Your task to perform on an android device: Search for Mexican restaurants on Maps Image 0: 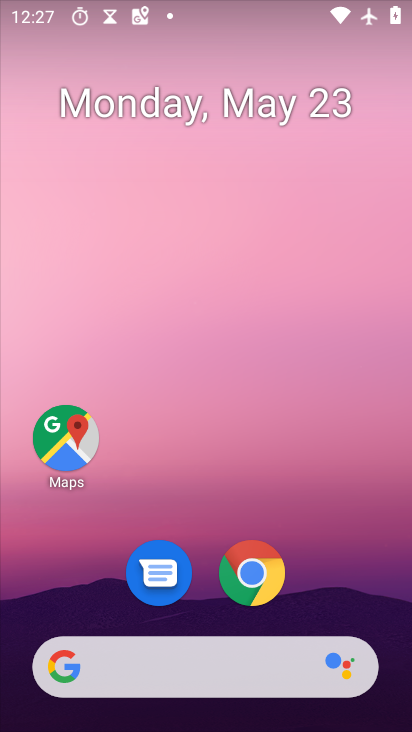
Step 0: press home button
Your task to perform on an android device: Search for Mexican restaurants on Maps Image 1: 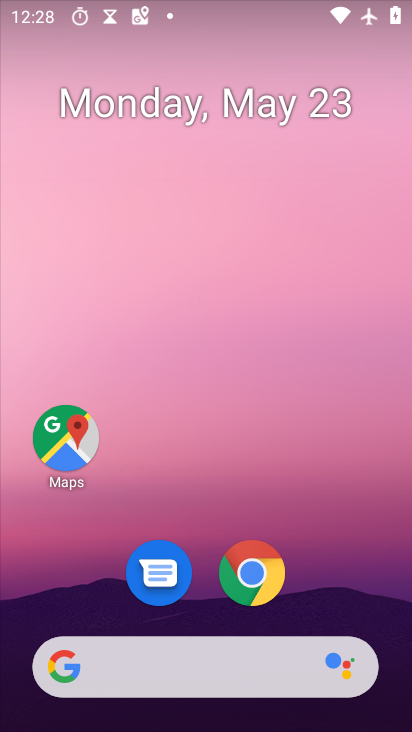
Step 1: click (54, 447)
Your task to perform on an android device: Search for Mexican restaurants on Maps Image 2: 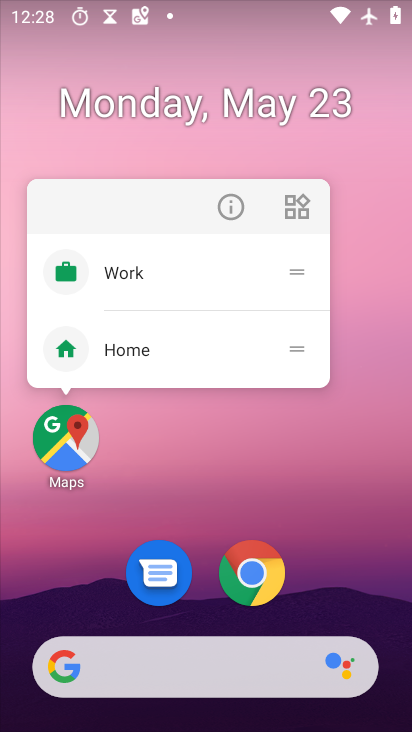
Step 2: click (68, 458)
Your task to perform on an android device: Search for Mexican restaurants on Maps Image 3: 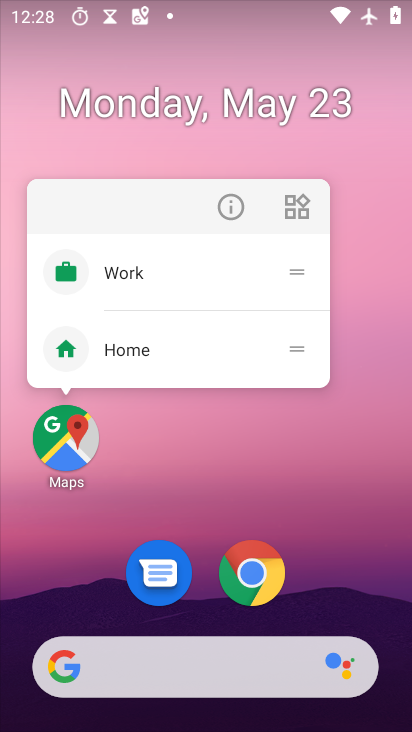
Step 3: click (68, 454)
Your task to perform on an android device: Search for Mexican restaurants on Maps Image 4: 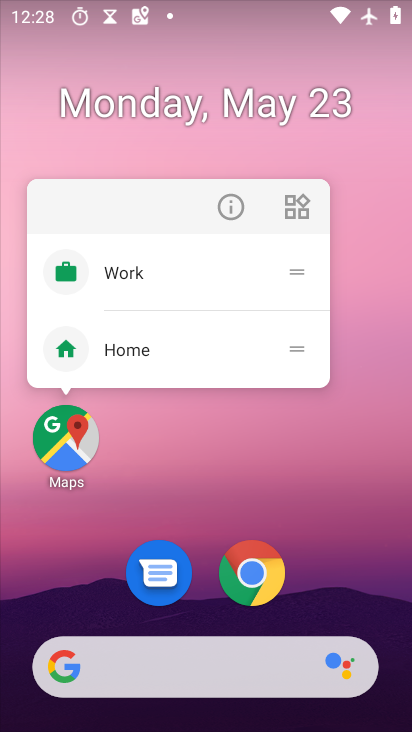
Step 4: click (63, 436)
Your task to perform on an android device: Search for Mexican restaurants on Maps Image 5: 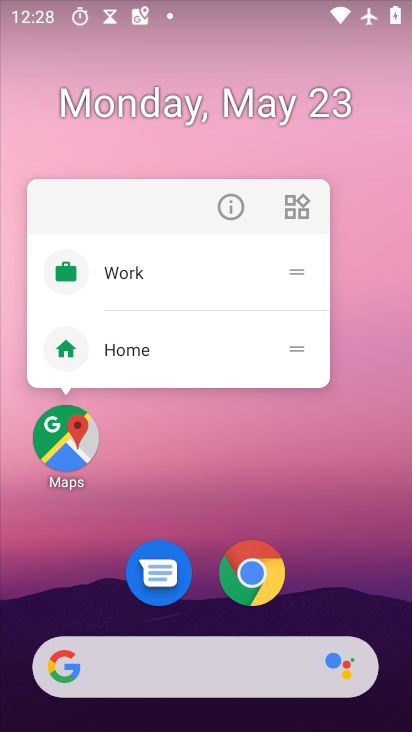
Step 5: click (66, 458)
Your task to perform on an android device: Search for Mexican restaurants on Maps Image 6: 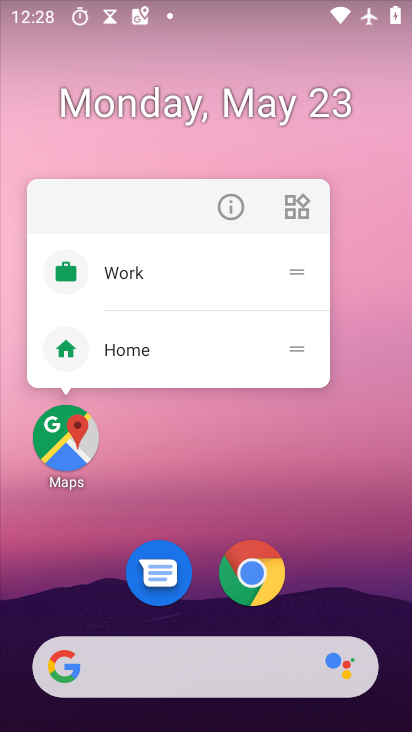
Step 6: click (66, 447)
Your task to perform on an android device: Search for Mexican restaurants on Maps Image 7: 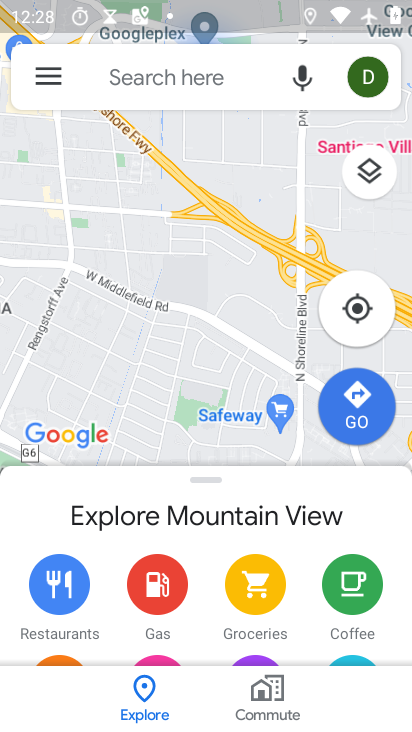
Step 7: click (214, 79)
Your task to perform on an android device: Search for Mexican restaurants on Maps Image 8: 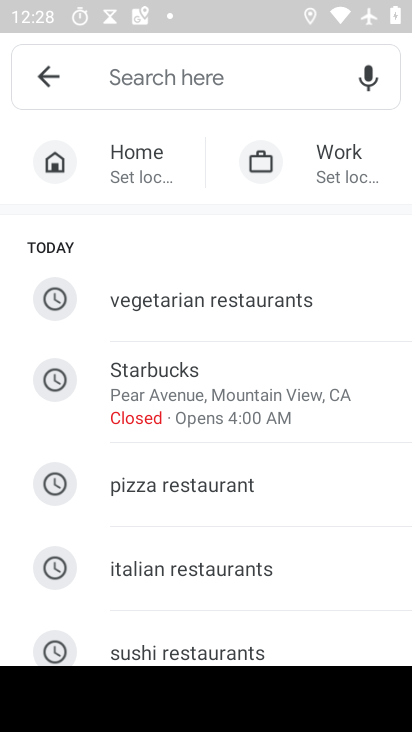
Step 8: drag from (207, 533) to (307, 270)
Your task to perform on an android device: Search for Mexican restaurants on Maps Image 9: 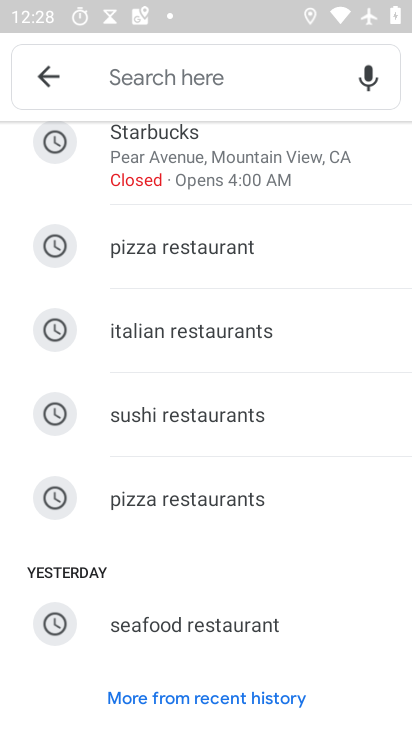
Step 9: drag from (299, 396) to (272, 545)
Your task to perform on an android device: Search for Mexican restaurants on Maps Image 10: 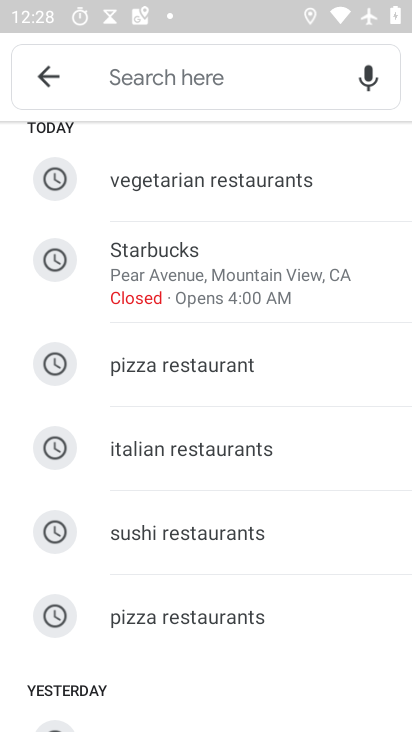
Step 10: click (186, 76)
Your task to perform on an android device: Search for Mexican restaurants on Maps Image 11: 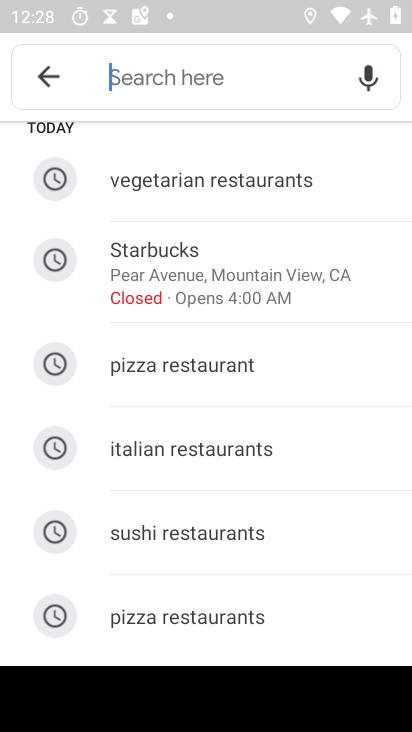
Step 11: type "mexican"
Your task to perform on an android device: Search for Mexican restaurants on Maps Image 12: 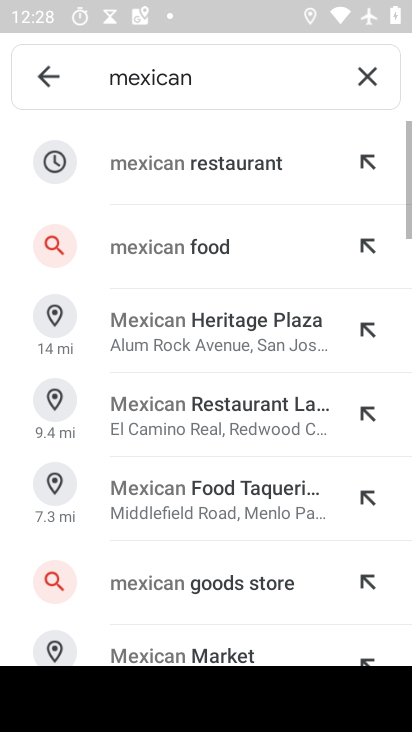
Step 12: click (231, 169)
Your task to perform on an android device: Search for Mexican restaurants on Maps Image 13: 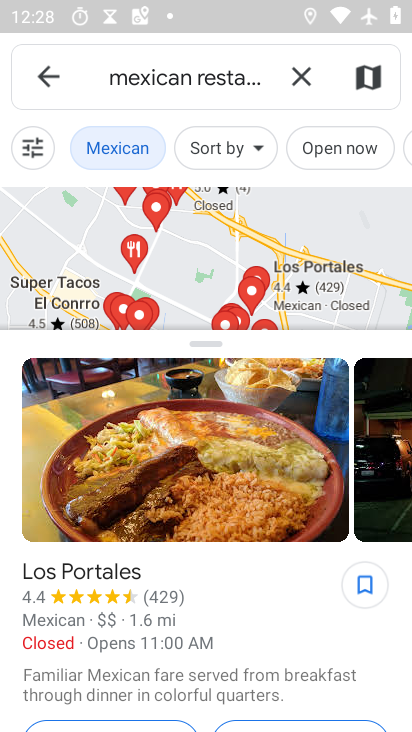
Step 13: task complete